Your task to perform on an android device: change the clock style Image 0: 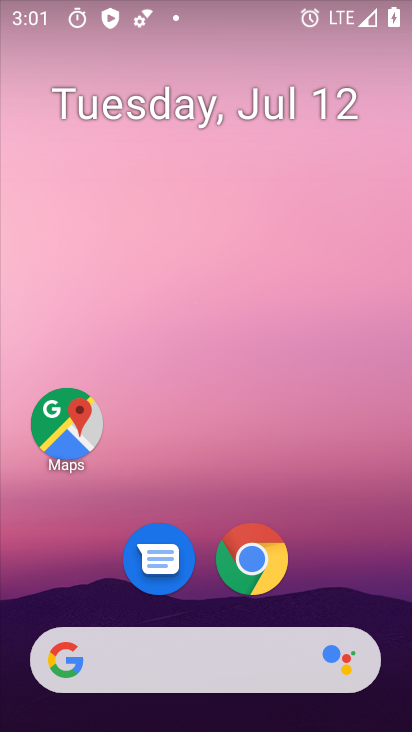
Step 0: drag from (333, 578) to (365, 189)
Your task to perform on an android device: change the clock style Image 1: 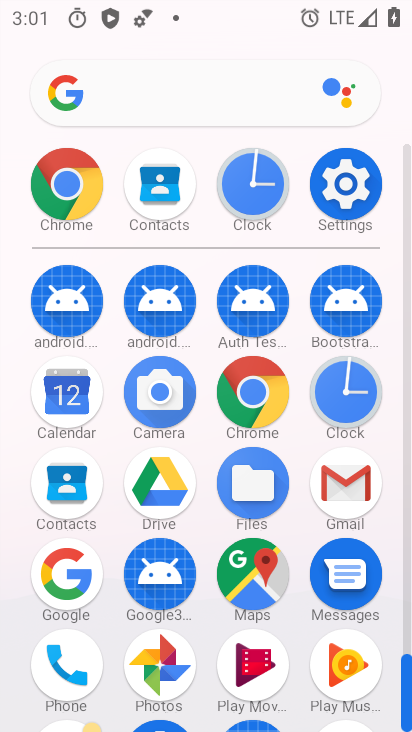
Step 1: click (357, 396)
Your task to perform on an android device: change the clock style Image 2: 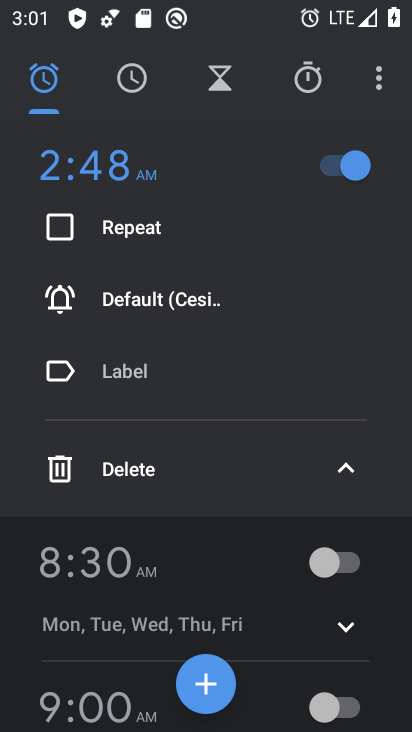
Step 2: click (383, 89)
Your task to perform on an android device: change the clock style Image 3: 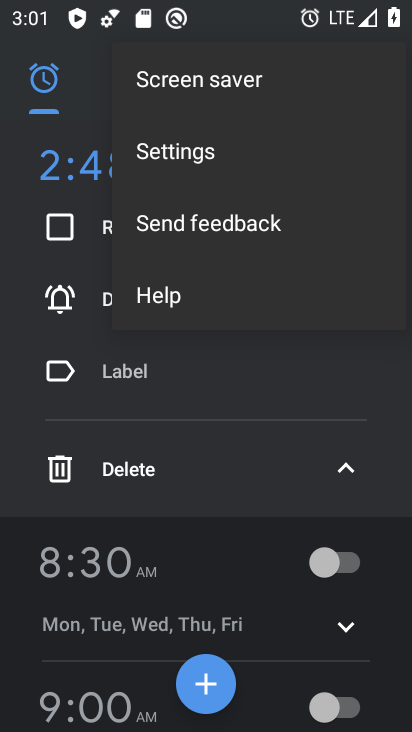
Step 3: click (191, 161)
Your task to perform on an android device: change the clock style Image 4: 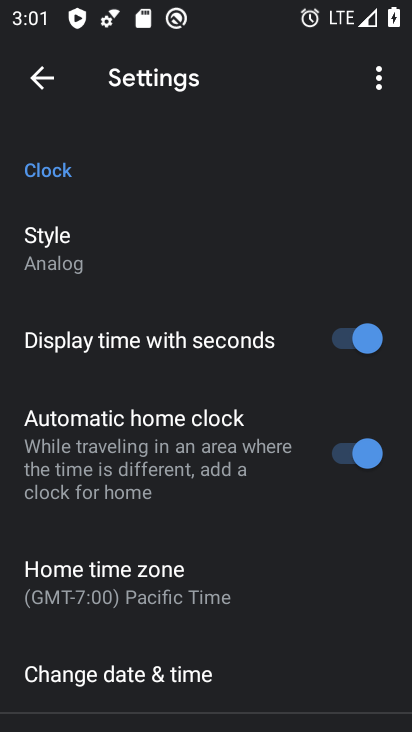
Step 4: drag from (307, 493) to (312, 420)
Your task to perform on an android device: change the clock style Image 5: 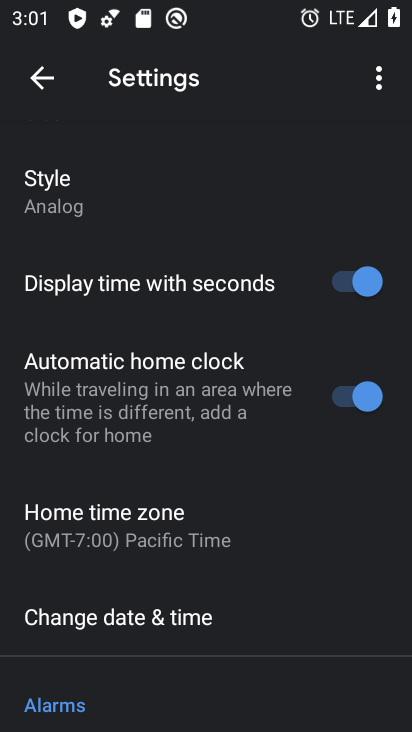
Step 5: drag from (305, 489) to (305, 394)
Your task to perform on an android device: change the clock style Image 6: 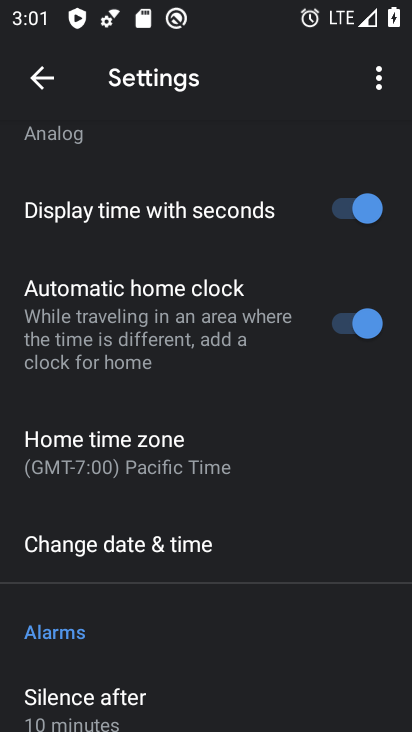
Step 6: drag from (287, 512) to (288, 407)
Your task to perform on an android device: change the clock style Image 7: 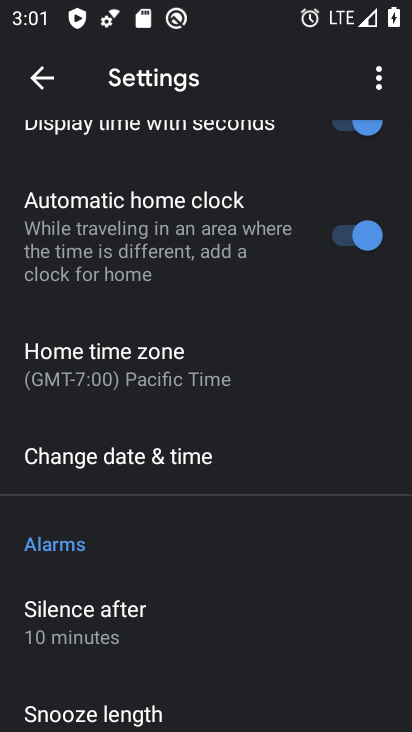
Step 7: drag from (289, 513) to (291, 417)
Your task to perform on an android device: change the clock style Image 8: 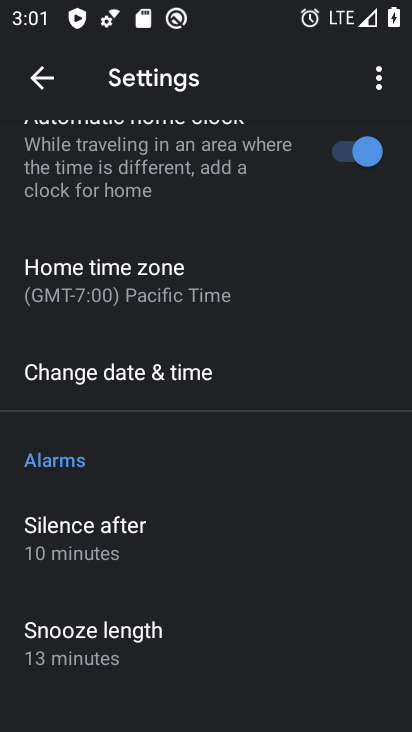
Step 8: drag from (287, 524) to (305, 403)
Your task to perform on an android device: change the clock style Image 9: 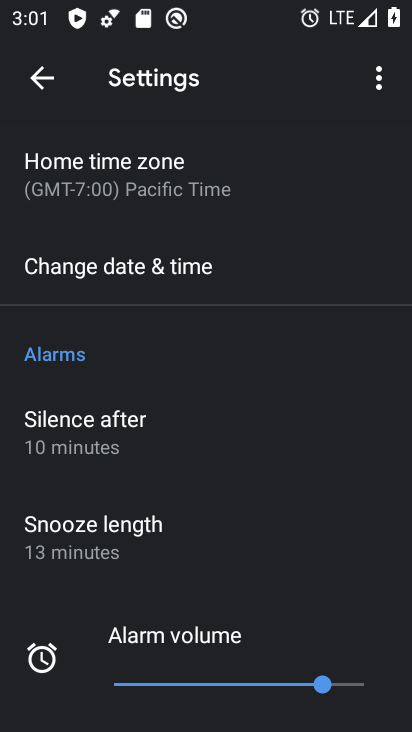
Step 9: drag from (264, 537) to (272, 397)
Your task to perform on an android device: change the clock style Image 10: 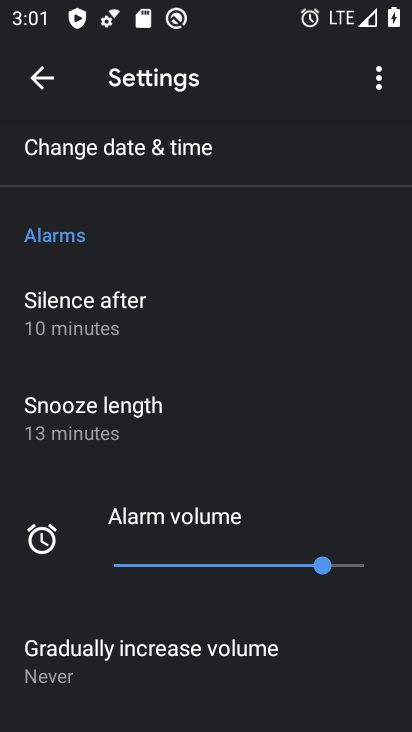
Step 10: drag from (270, 535) to (270, 336)
Your task to perform on an android device: change the clock style Image 11: 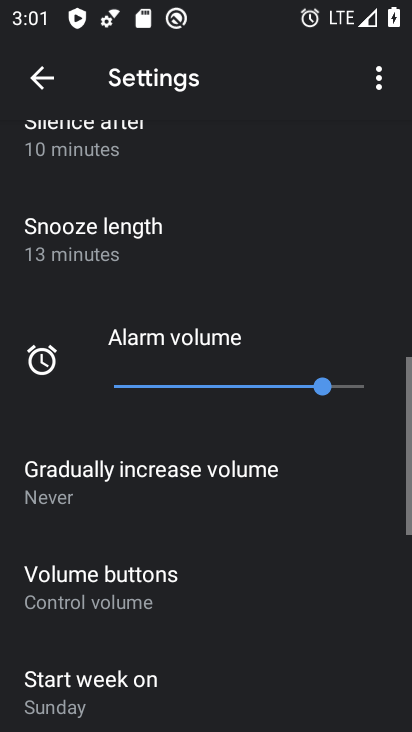
Step 11: drag from (275, 280) to (277, 373)
Your task to perform on an android device: change the clock style Image 12: 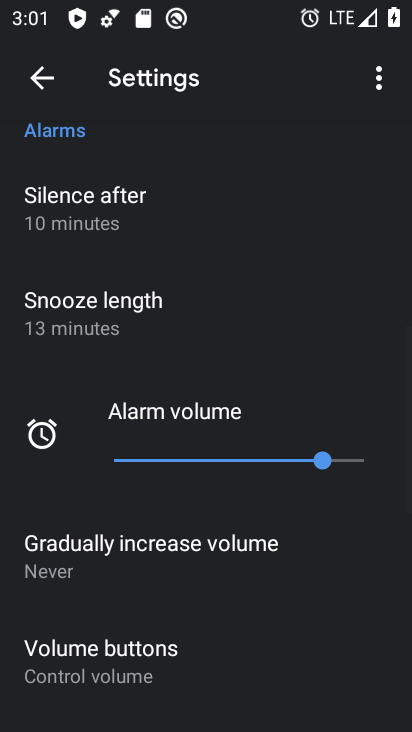
Step 12: drag from (309, 259) to (312, 363)
Your task to perform on an android device: change the clock style Image 13: 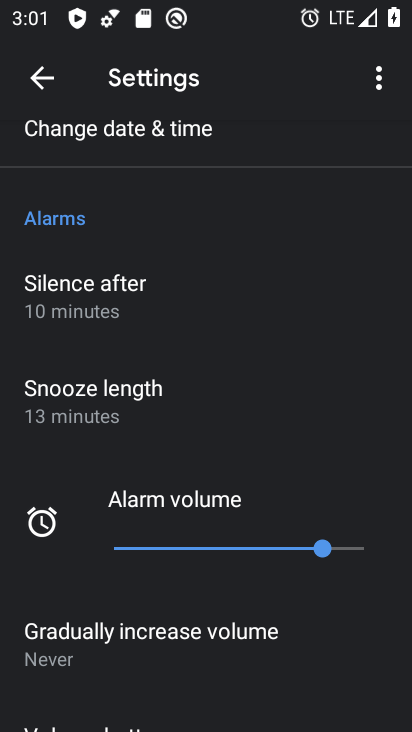
Step 13: drag from (311, 265) to (310, 356)
Your task to perform on an android device: change the clock style Image 14: 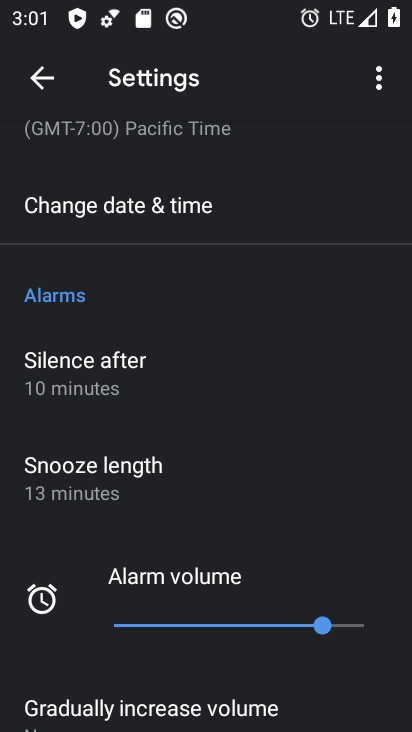
Step 14: drag from (322, 272) to (323, 386)
Your task to perform on an android device: change the clock style Image 15: 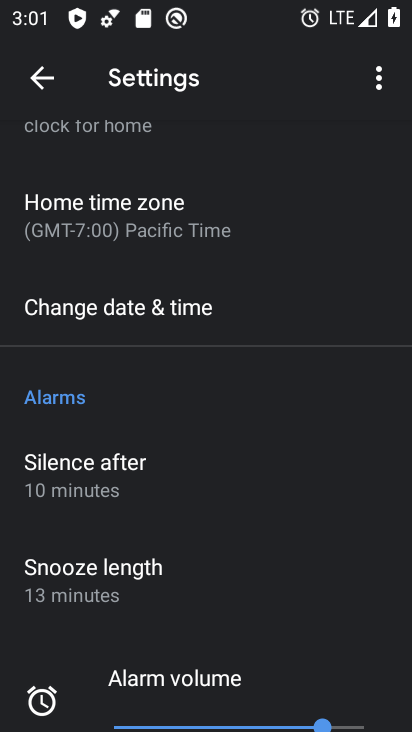
Step 15: drag from (321, 261) to (318, 488)
Your task to perform on an android device: change the clock style Image 16: 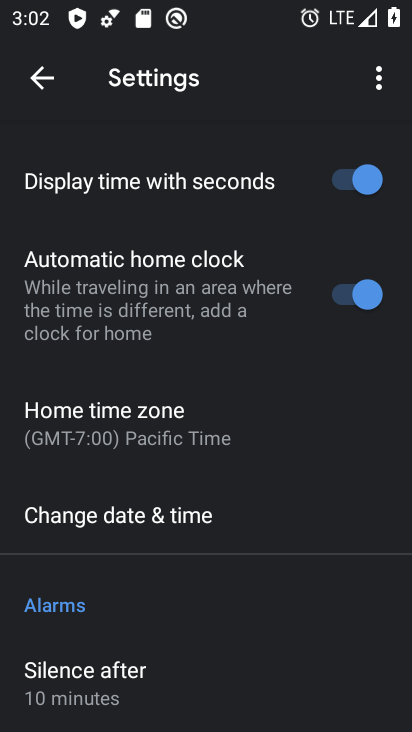
Step 16: drag from (284, 232) to (287, 430)
Your task to perform on an android device: change the clock style Image 17: 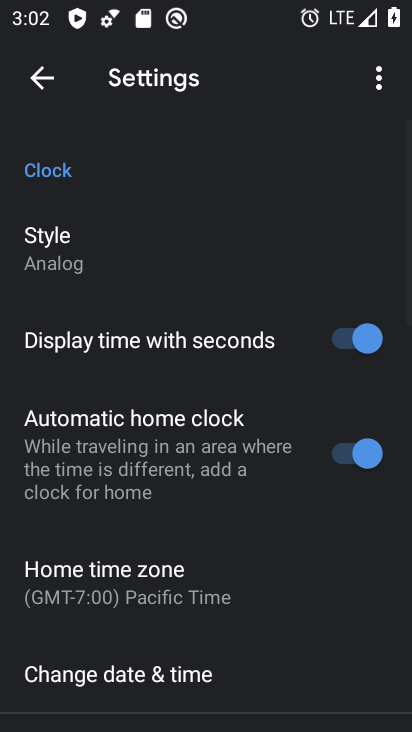
Step 17: click (86, 270)
Your task to perform on an android device: change the clock style Image 18: 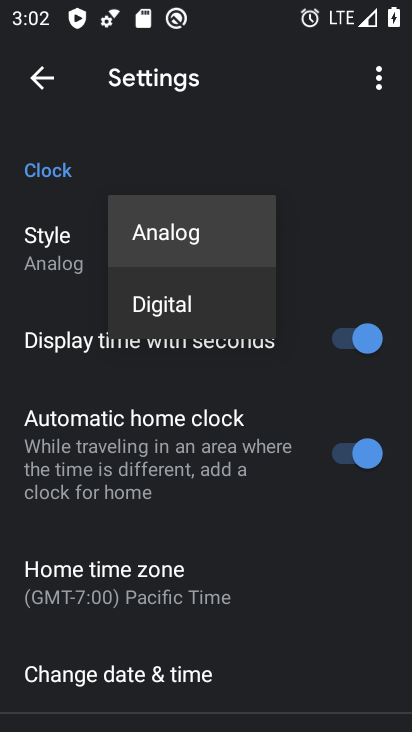
Step 18: click (169, 296)
Your task to perform on an android device: change the clock style Image 19: 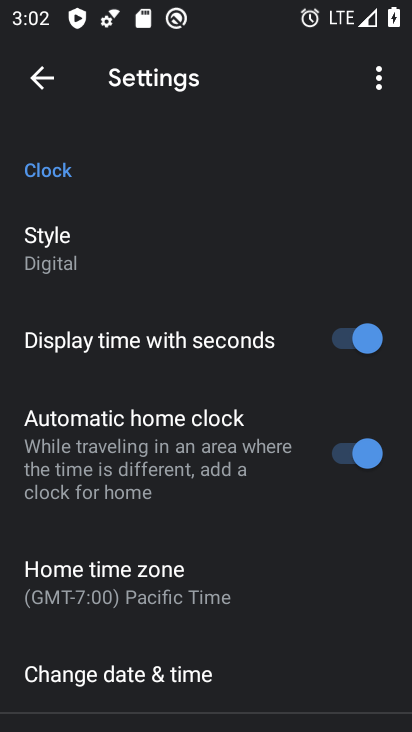
Step 19: task complete